Your task to perform on an android device: toggle location history Image 0: 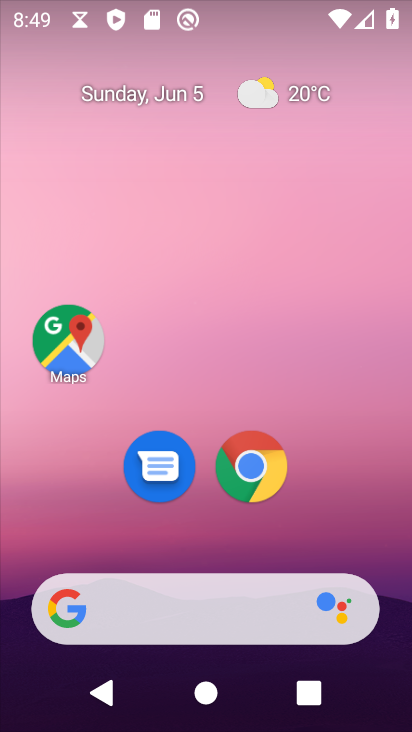
Step 0: drag from (215, 563) to (193, 237)
Your task to perform on an android device: toggle location history Image 1: 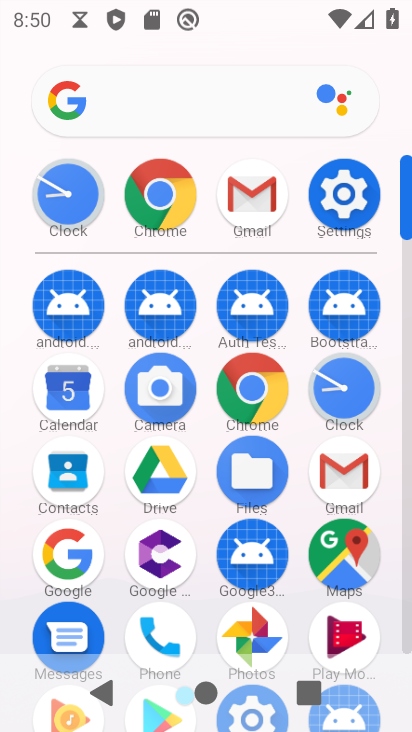
Step 1: click (346, 195)
Your task to perform on an android device: toggle location history Image 2: 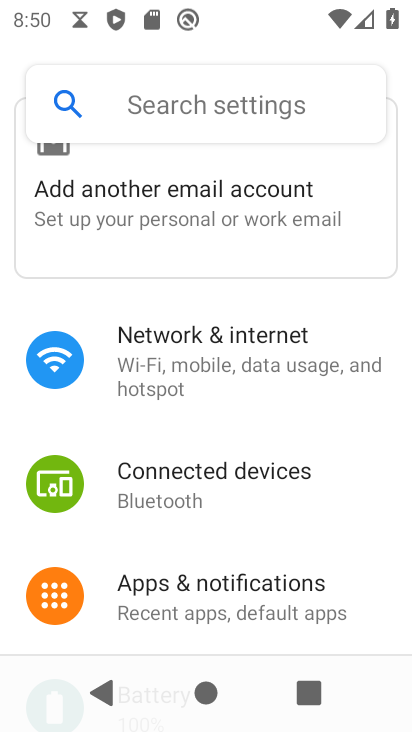
Step 2: drag from (247, 587) to (214, 170)
Your task to perform on an android device: toggle location history Image 3: 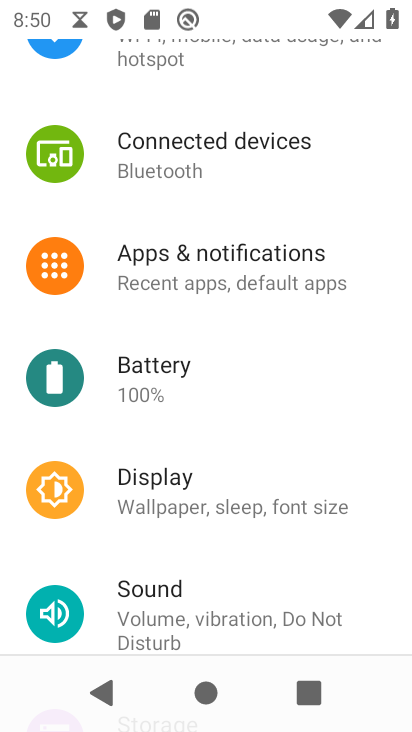
Step 3: drag from (243, 534) to (229, 149)
Your task to perform on an android device: toggle location history Image 4: 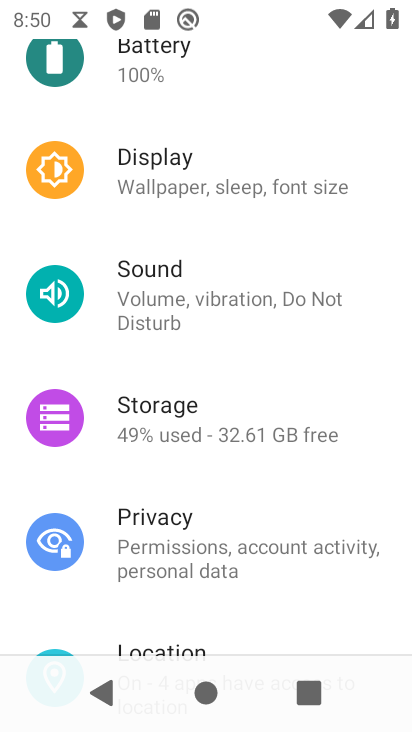
Step 4: drag from (197, 507) to (216, 208)
Your task to perform on an android device: toggle location history Image 5: 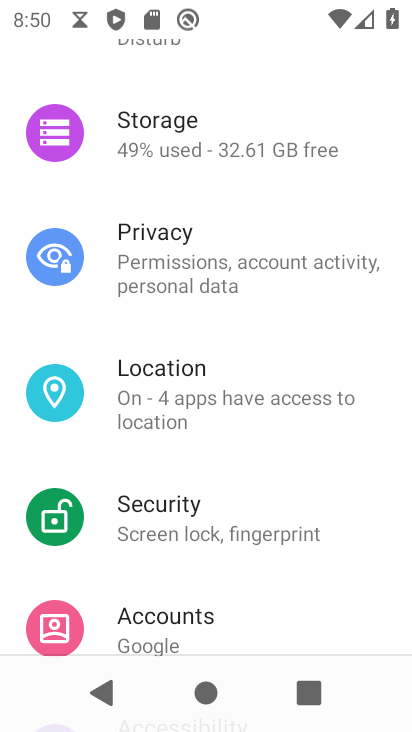
Step 5: click (204, 395)
Your task to perform on an android device: toggle location history Image 6: 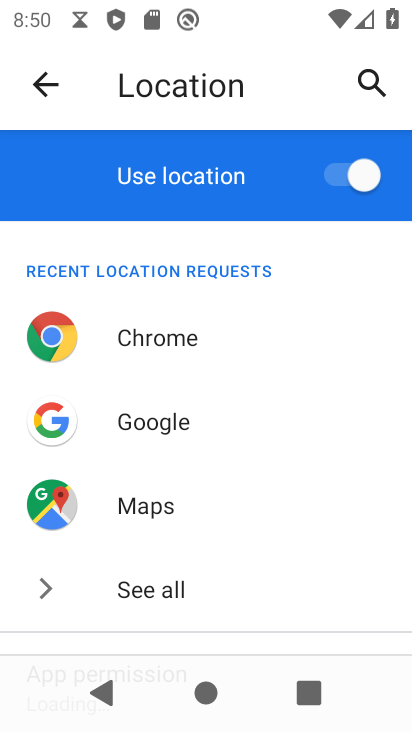
Step 6: drag from (204, 530) to (198, 172)
Your task to perform on an android device: toggle location history Image 7: 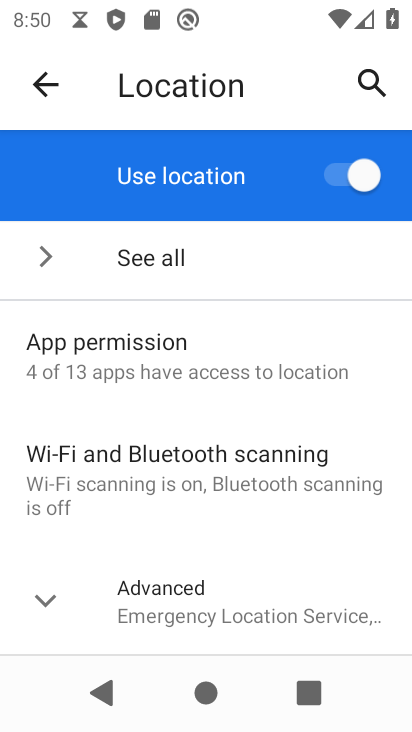
Step 7: click (153, 607)
Your task to perform on an android device: toggle location history Image 8: 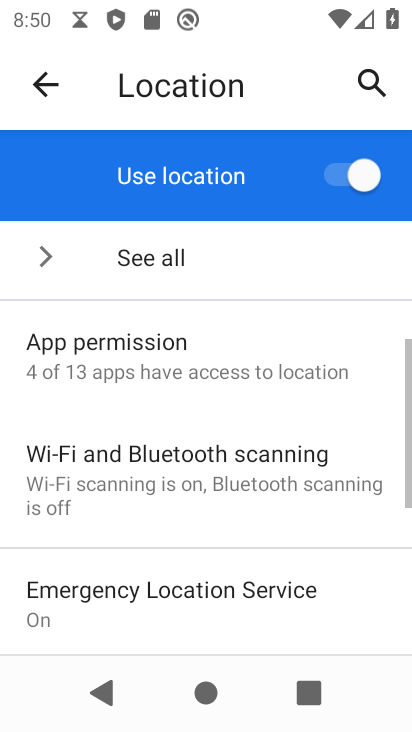
Step 8: drag from (157, 536) to (165, 92)
Your task to perform on an android device: toggle location history Image 9: 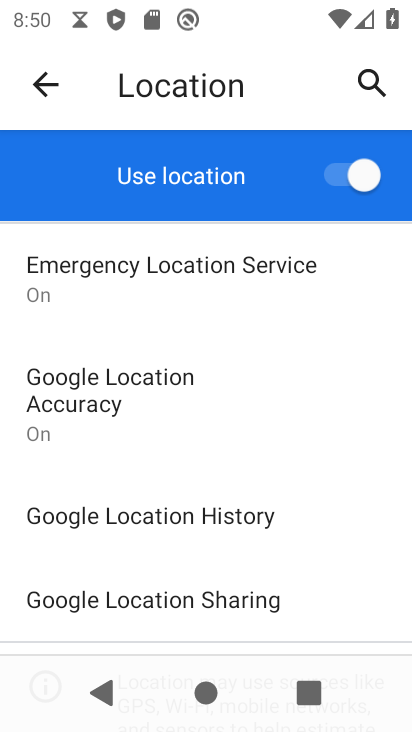
Step 9: click (187, 522)
Your task to perform on an android device: toggle location history Image 10: 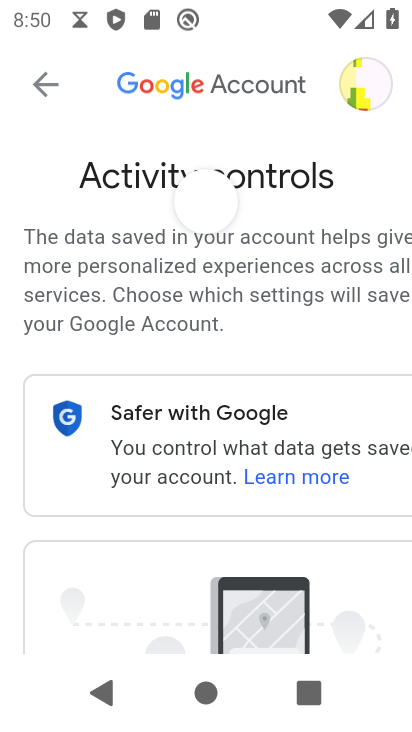
Step 10: drag from (187, 522) to (192, 257)
Your task to perform on an android device: toggle location history Image 11: 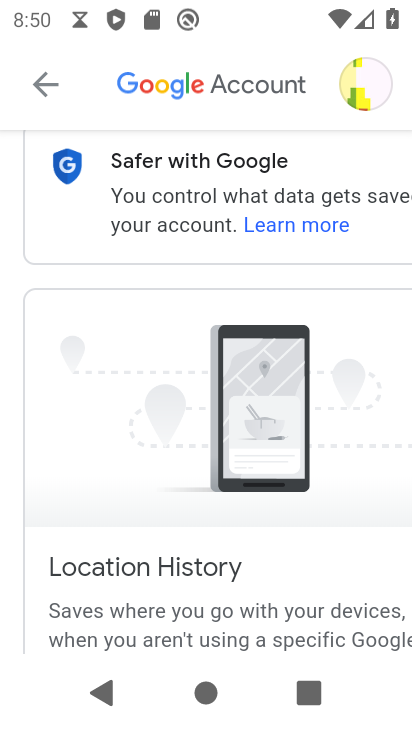
Step 11: drag from (181, 603) to (181, 362)
Your task to perform on an android device: toggle location history Image 12: 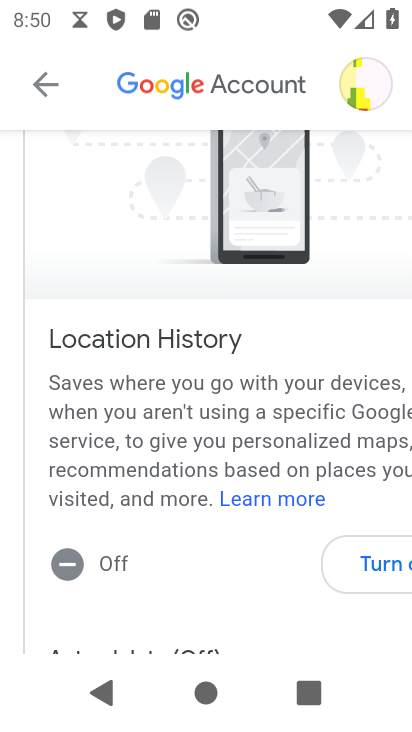
Step 12: click (382, 577)
Your task to perform on an android device: toggle location history Image 13: 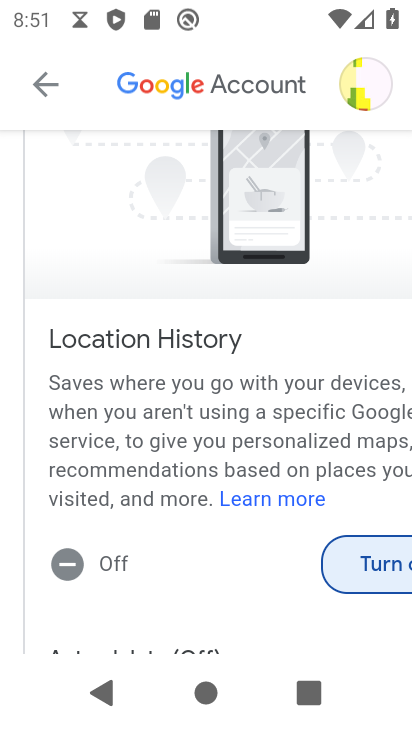
Step 13: click (357, 565)
Your task to perform on an android device: toggle location history Image 14: 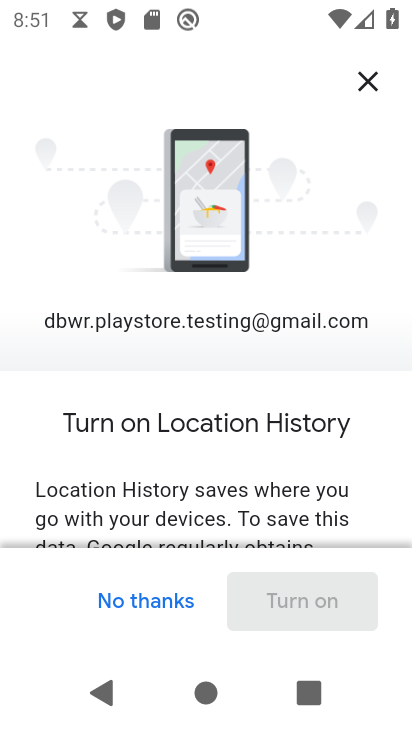
Step 14: drag from (213, 506) to (218, 280)
Your task to perform on an android device: toggle location history Image 15: 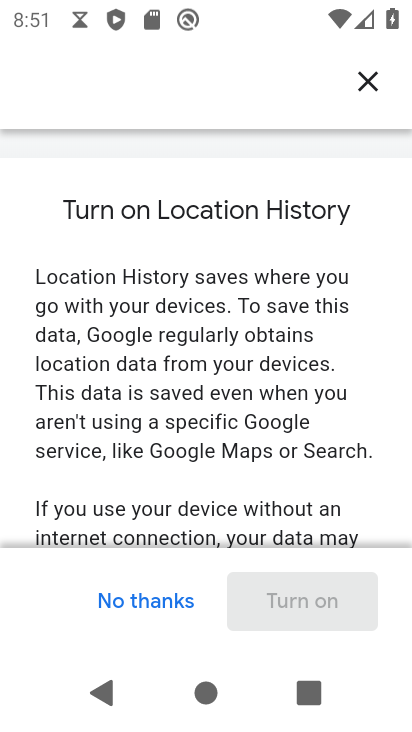
Step 15: drag from (306, 480) to (299, 280)
Your task to perform on an android device: toggle location history Image 16: 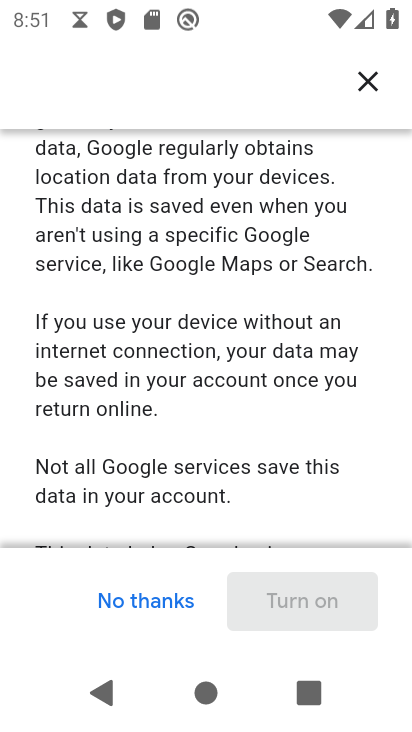
Step 16: drag from (287, 477) to (254, 253)
Your task to perform on an android device: toggle location history Image 17: 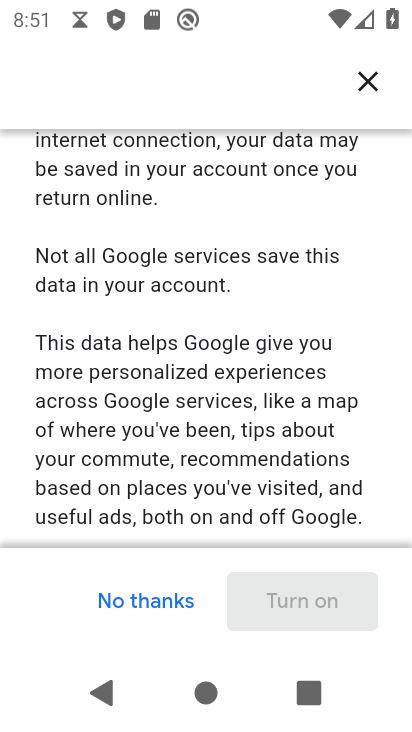
Step 17: drag from (304, 491) to (273, 276)
Your task to perform on an android device: toggle location history Image 18: 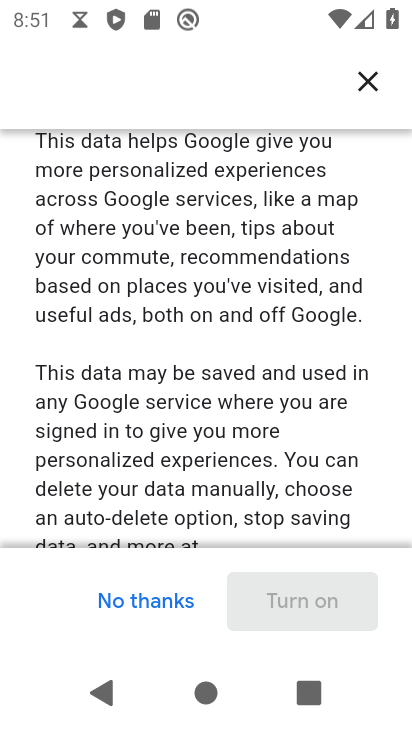
Step 18: drag from (296, 496) to (262, 286)
Your task to perform on an android device: toggle location history Image 19: 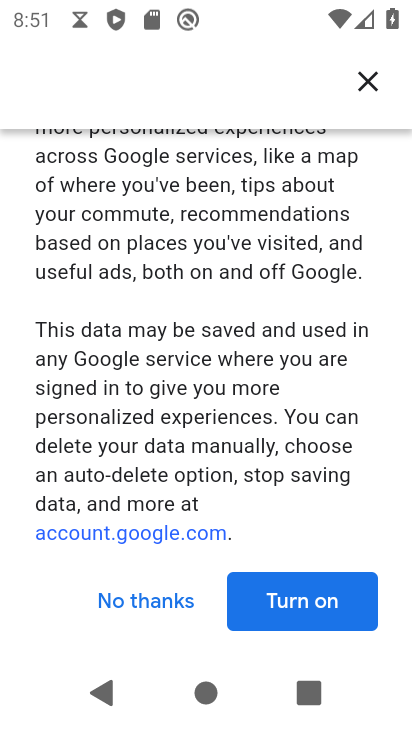
Step 19: click (325, 591)
Your task to perform on an android device: toggle location history Image 20: 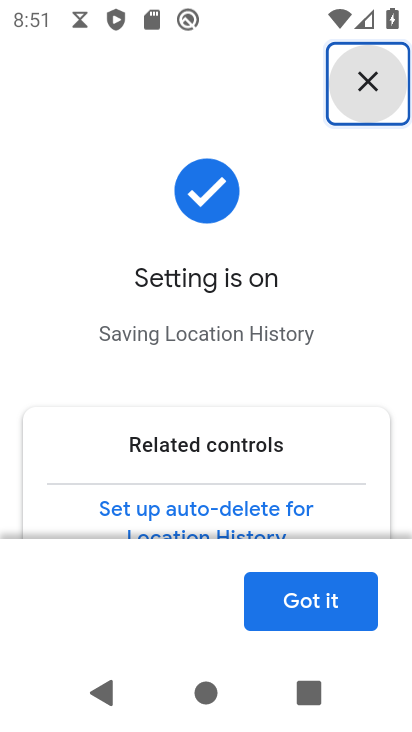
Step 20: click (322, 609)
Your task to perform on an android device: toggle location history Image 21: 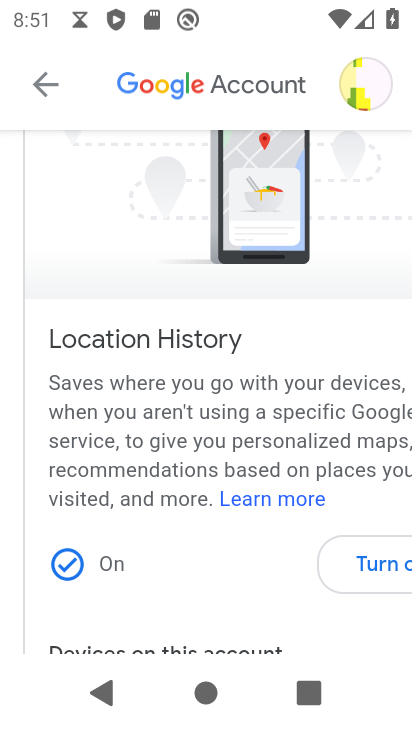
Step 21: task complete